Your task to perform on an android device: Set the phone to "Do not disturb". Image 0: 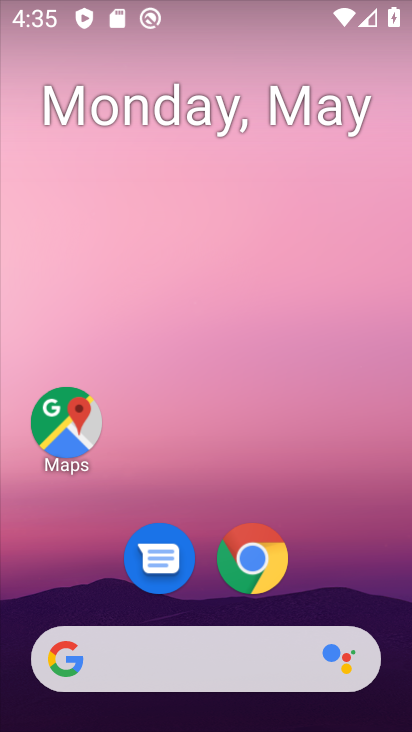
Step 0: drag from (310, 494) to (221, 30)
Your task to perform on an android device: Set the phone to "Do not disturb". Image 1: 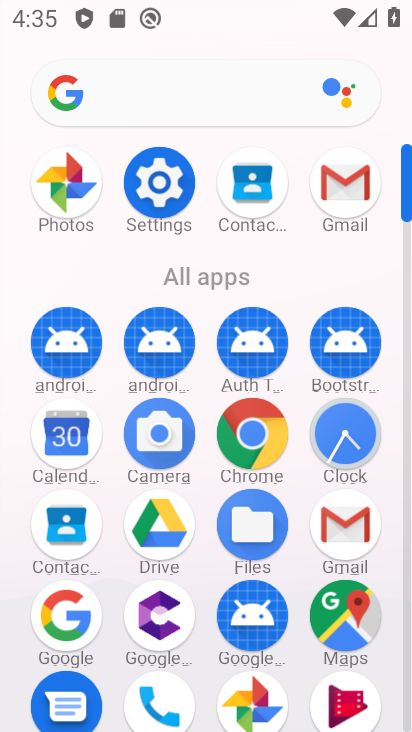
Step 1: click (162, 187)
Your task to perform on an android device: Set the phone to "Do not disturb". Image 2: 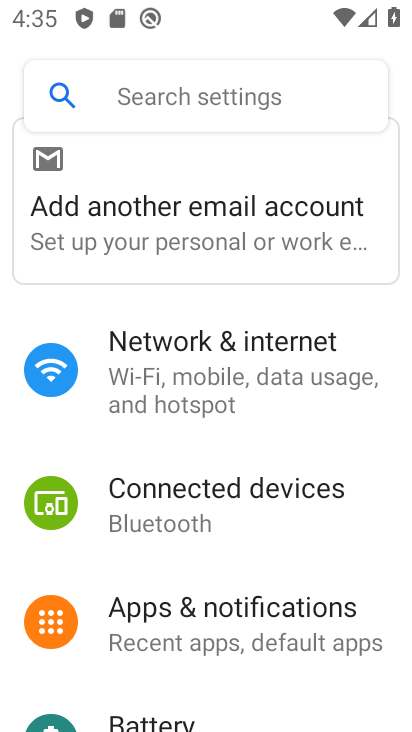
Step 2: drag from (262, 549) to (229, 229)
Your task to perform on an android device: Set the phone to "Do not disturb". Image 3: 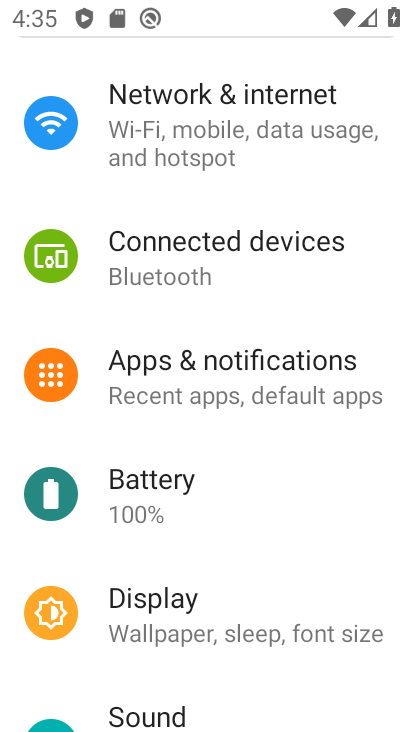
Step 3: drag from (276, 685) to (258, 352)
Your task to perform on an android device: Set the phone to "Do not disturb". Image 4: 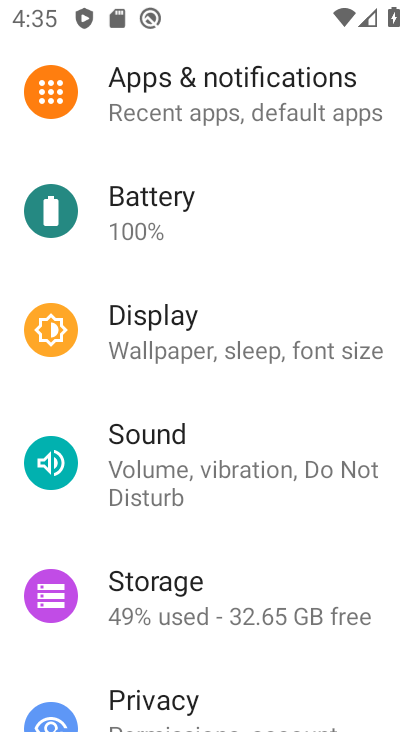
Step 4: click (126, 442)
Your task to perform on an android device: Set the phone to "Do not disturb". Image 5: 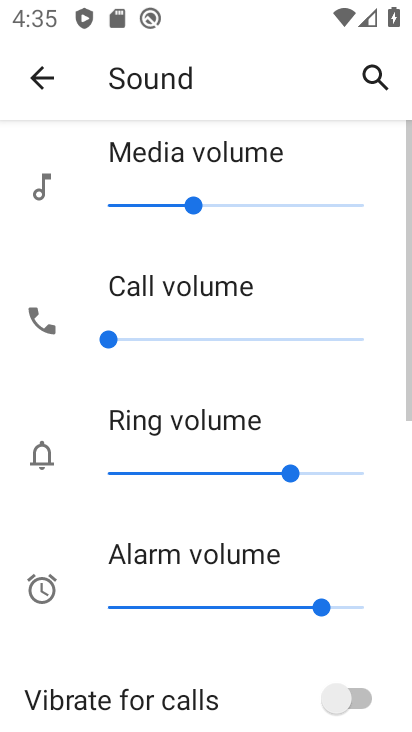
Step 5: drag from (205, 554) to (188, 190)
Your task to perform on an android device: Set the phone to "Do not disturb". Image 6: 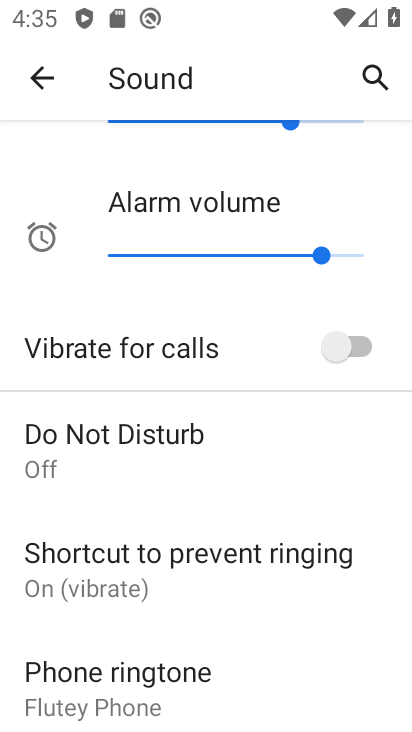
Step 6: click (48, 435)
Your task to perform on an android device: Set the phone to "Do not disturb". Image 7: 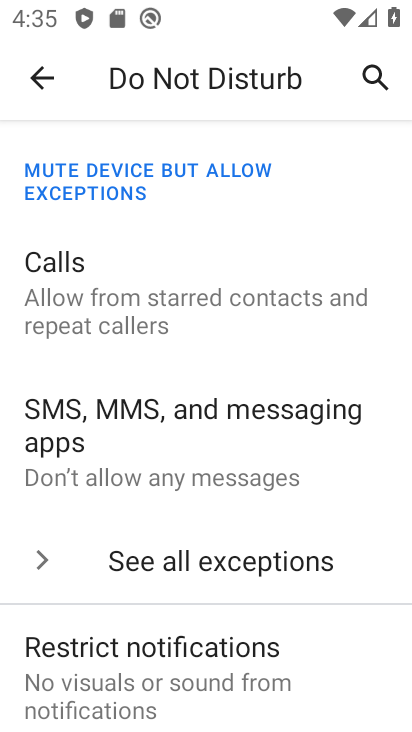
Step 7: drag from (218, 537) to (170, 183)
Your task to perform on an android device: Set the phone to "Do not disturb". Image 8: 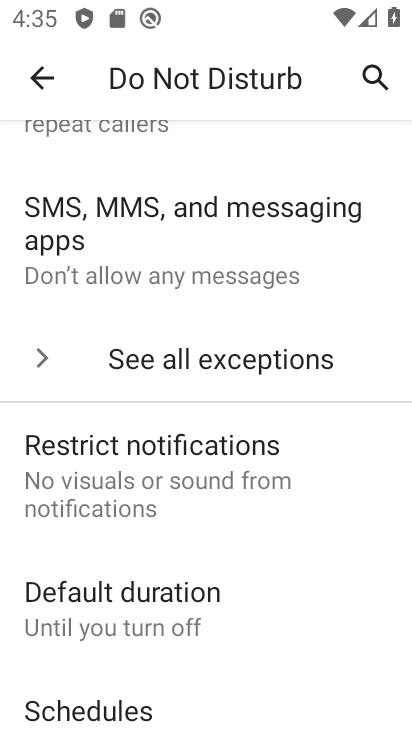
Step 8: drag from (249, 542) to (205, 236)
Your task to perform on an android device: Set the phone to "Do not disturb". Image 9: 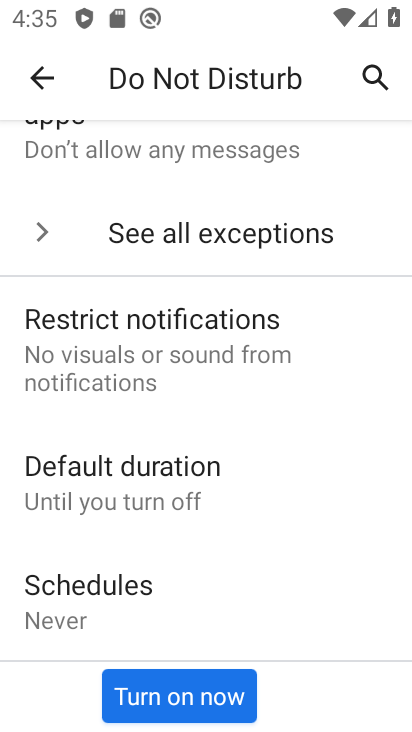
Step 9: click (168, 710)
Your task to perform on an android device: Set the phone to "Do not disturb". Image 10: 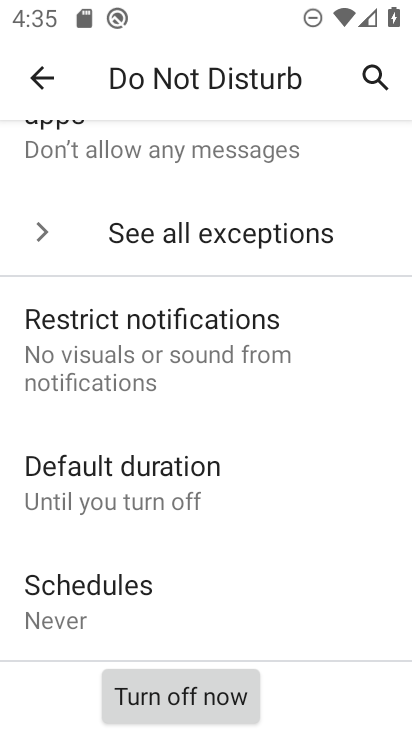
Step 10: task complete